Your task to perform on an android device: star an email in the gmail app Image 0: 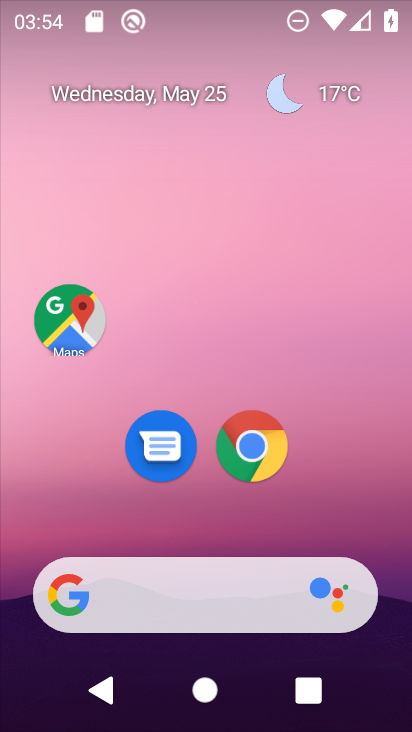
Step 0: drag from (182, 567) to (221, 138)
Your task to perform on an android device: star an email in the gmail app Image 1: 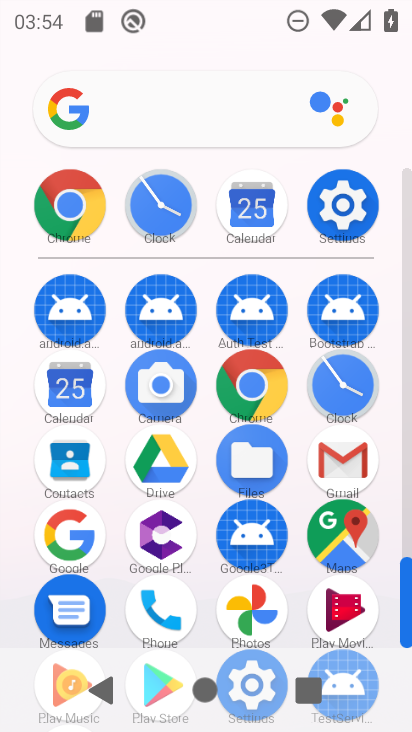
Step 1: click (335, 452)
Your task to perform on an android device: star an email in the gmail app Image 2: 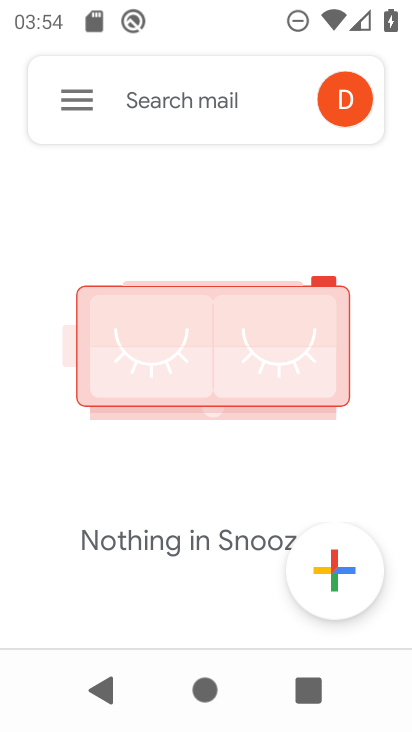
Step 2: click (85, 96)
Your task to perform on an android device: star an email in the gmail app Image 3: 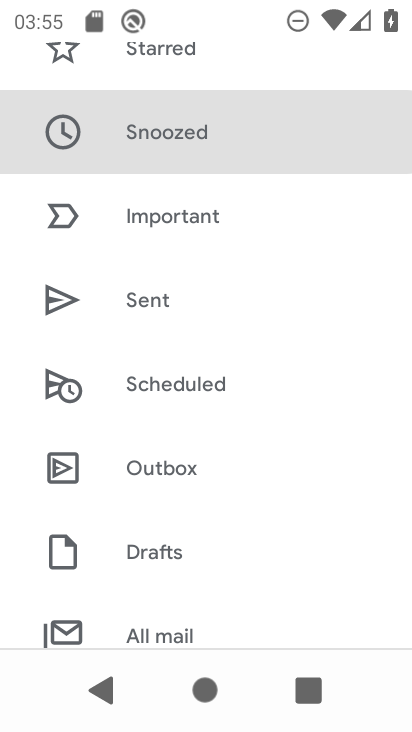
Step 3: click (138, 618)
Your task to perform on an android device: star an email in the gmail app Image 4: 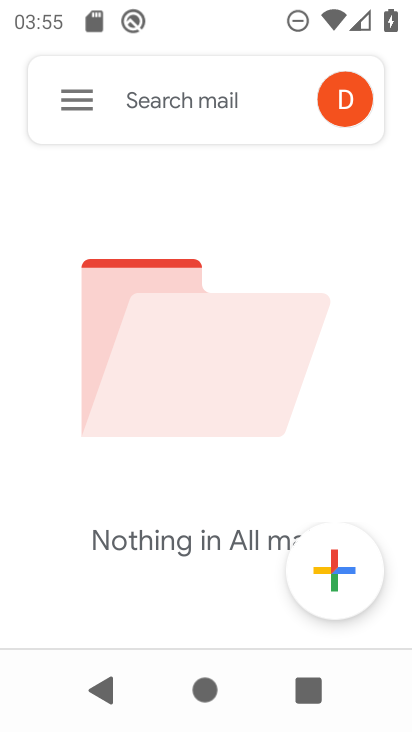
Step 4: task complete